Your task to perform on an android device: check android version Image 0: 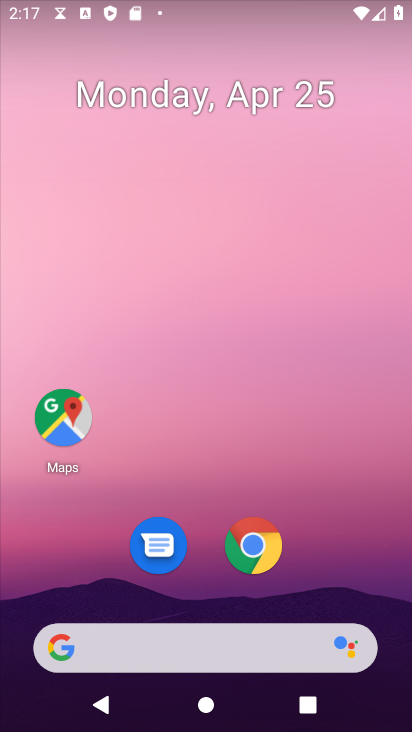
Step 0: drag from (207, 640) to (169, 91)
Your task to perform on an android device: check android version Image 1: 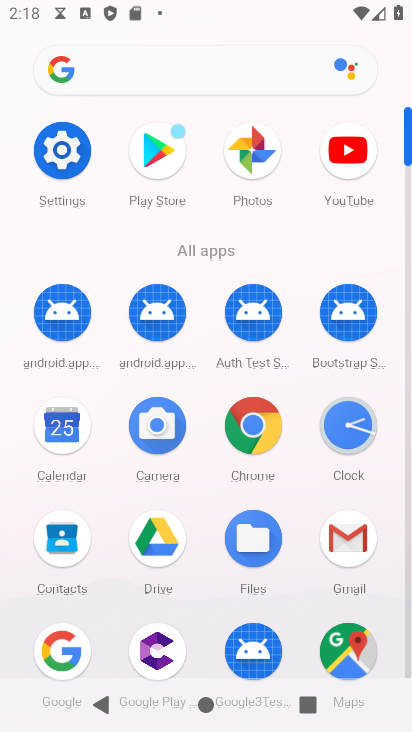
Step 1: click (68, 174)
Your task to perform on an android device: check android version Image 2: 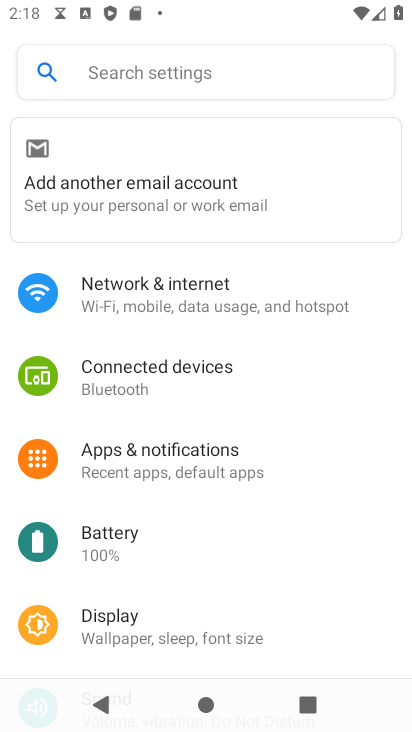
Step 2: drag from (136, 541) to (124, 104)
Your task to perform on an android device: check android version Image 3: 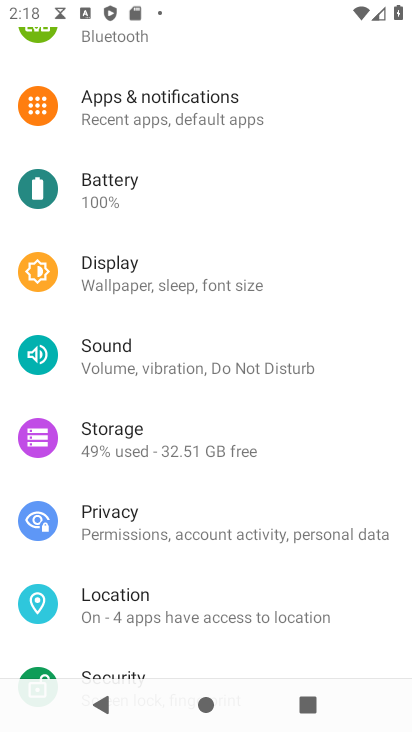
Step 3: drag from (215, 659) to (177, 135)
Your task to perform on an android device: check android version Image 4: 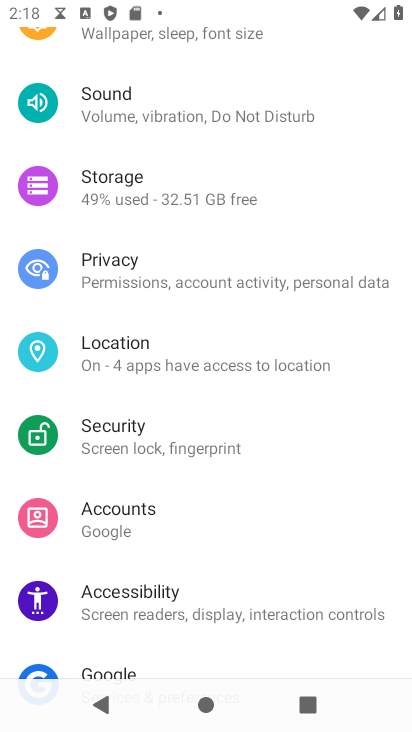
Step 4: drag from (159, 611) to (154, 74)
Your task to perform on an android device: check android version Image 5: 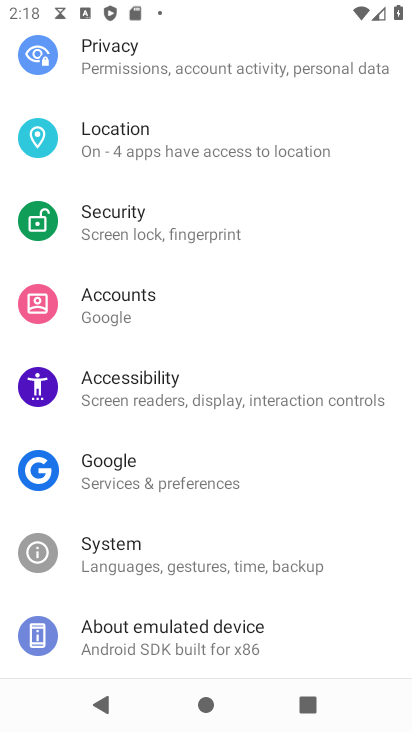
Step 5: click (170, 632)
Your task to perform on an android device: check android version Image 6: 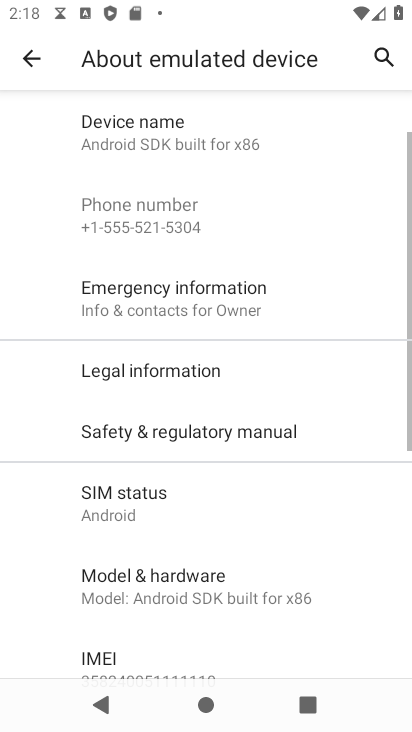
Step 6: drag from (214, 567) to (209, 106)
Your task to perform on an android device: check android version Image 7: 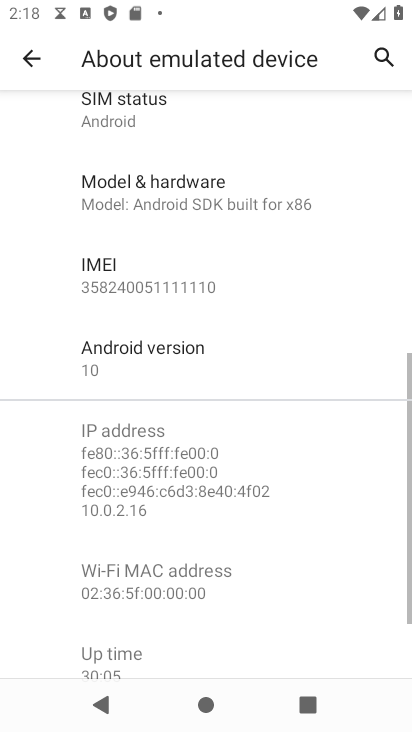
Step 7: click (150, 365)
Your task to perform on an android device: check android version Image 8: 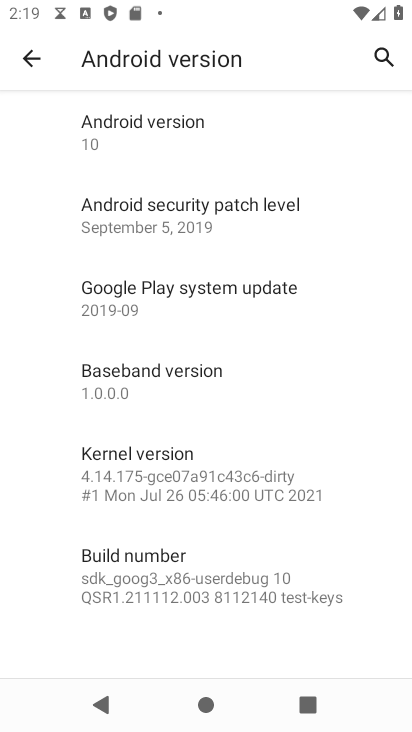
Step 8: task complete